Your task to perform on an android device: turn off sleep mode Image 0: 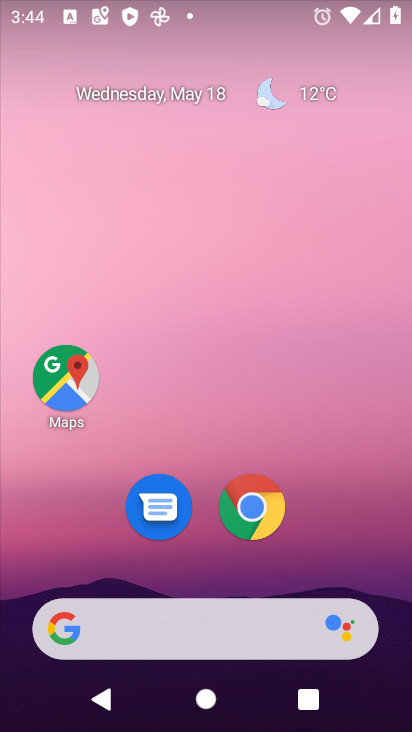
Step 0: drag from (404, 615) to (326, 80)
Your task to perform on an android device: turn off sleep mode Image 1: 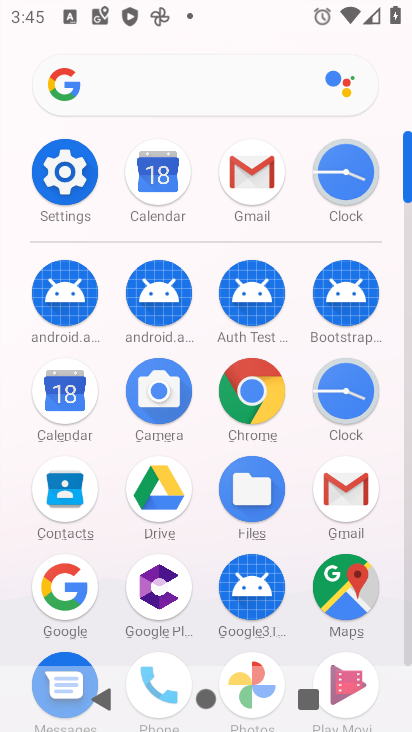
Step 1: click (405, 649)
Your task to perform on an android device: turn off sleep mode Image 2: 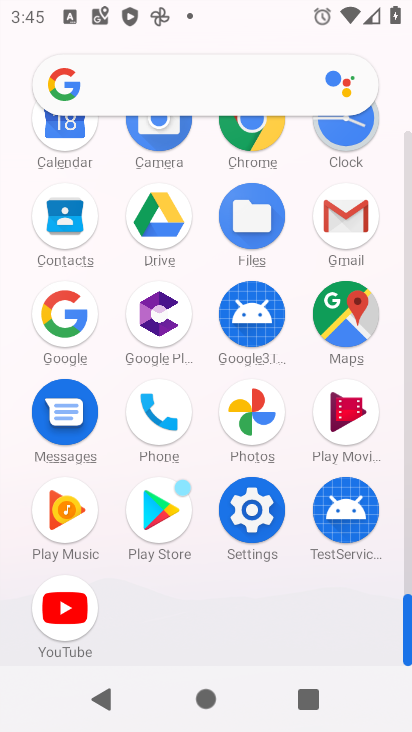
Step 2: click (251, 511)
Your task to perform on an android device: turn off sleep mode Image 3: 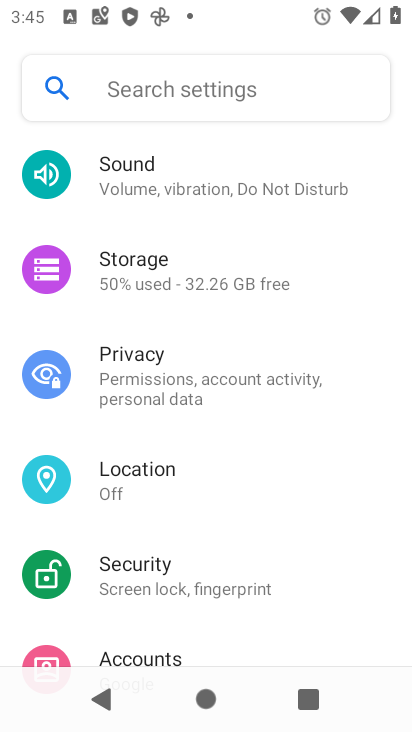
Step 3: drag from (344, 200) to (282, 486)
Your task to perform on an android device: turn off sleep mode Image 4: 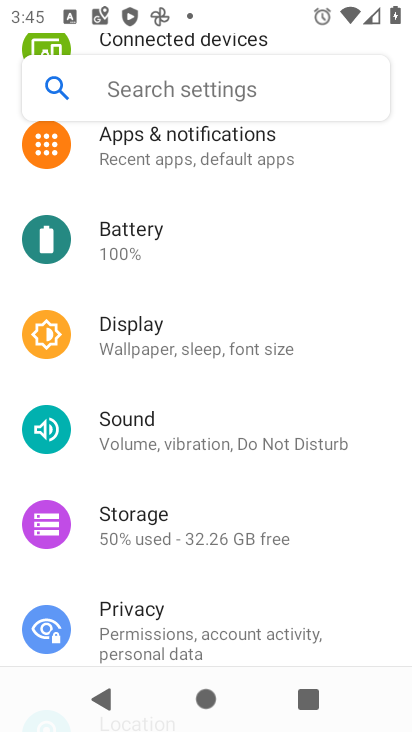
Step 4: drag from (352, 142) to (337, 306)
Your task to perform on an android device: turn off sleep mode Image 5: 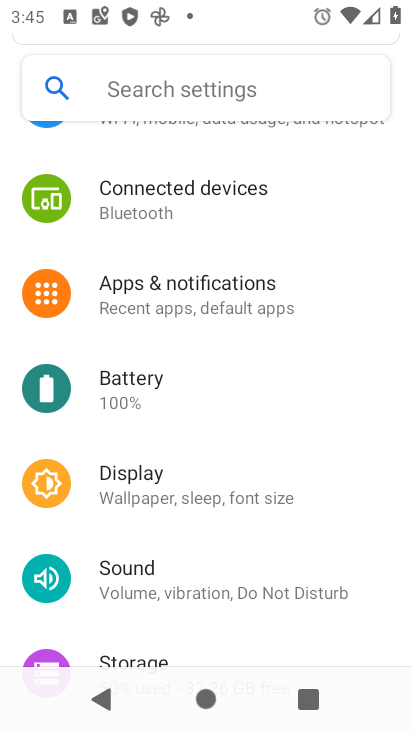
Step 5: click (131, 475)
Your task to perform on an android device: turn off sleep mode Image 6: 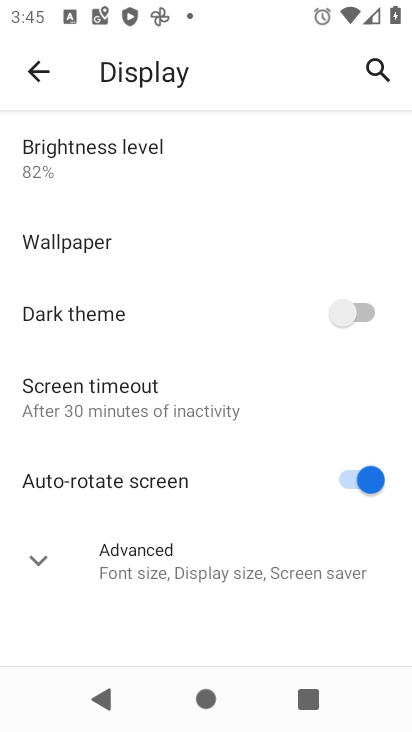
Step 6: click (43, 563)
Your task to perform on an android device: turn off sleep mode Image 7: 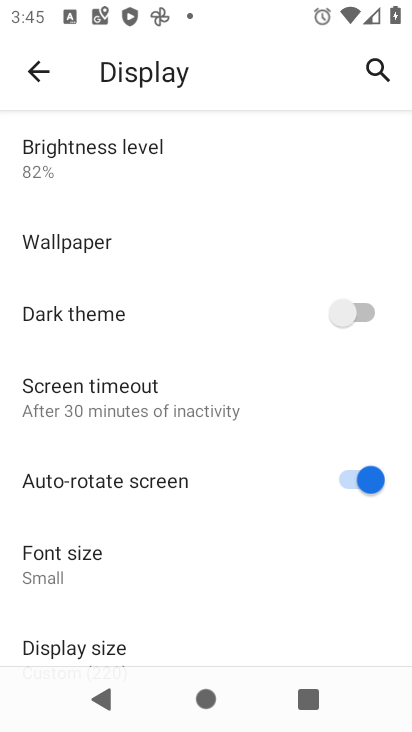
Step 7: task complete